Your task to perform on an android device: Go to wifi settings Image 0: 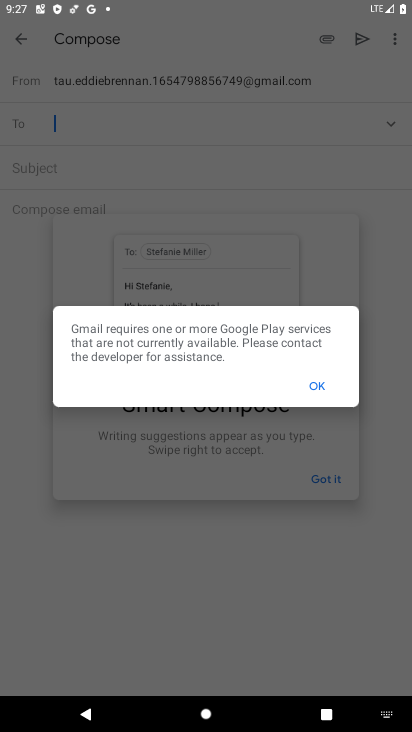
Step 0: press home button
Your task to perform on an android device: Go to wifi settings Image 1: 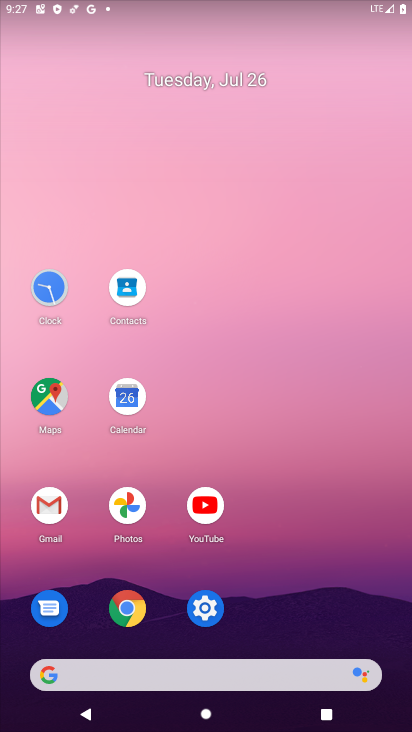
Step 1: click (207, 607)
Your task to perform on an android device: Go to wifi settings Image 2: 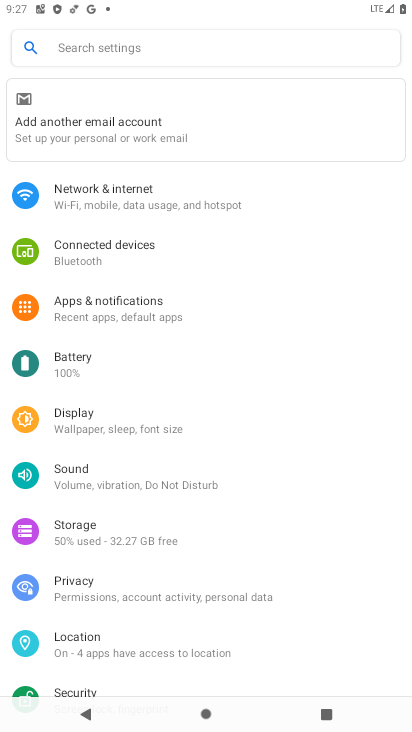
Step 2: click (99, 190)
Your task to perform on an android device: Go to wifi settings Image 3: 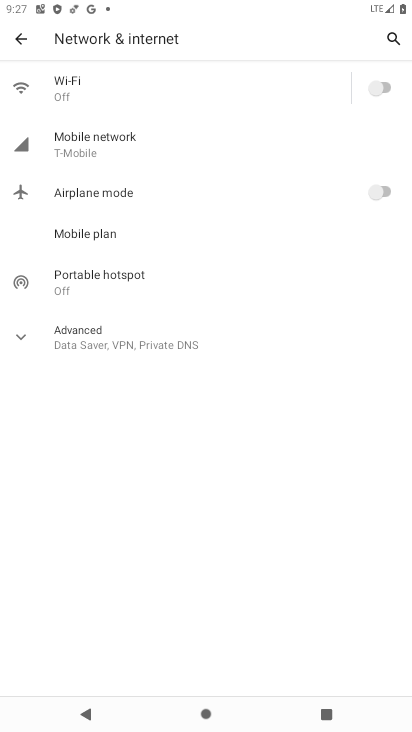
Step 3: click (94, 75)
Your task to perform on an android device: Go to wifi settings Image 4: 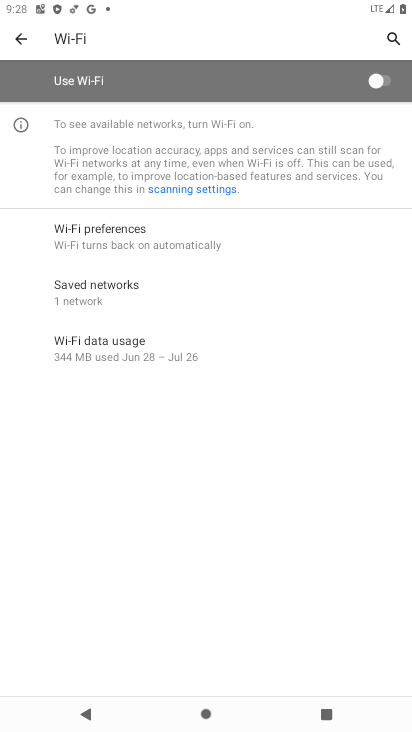
Step 4: task complete